Your task to perform on an android device: Check the weather Image 0: 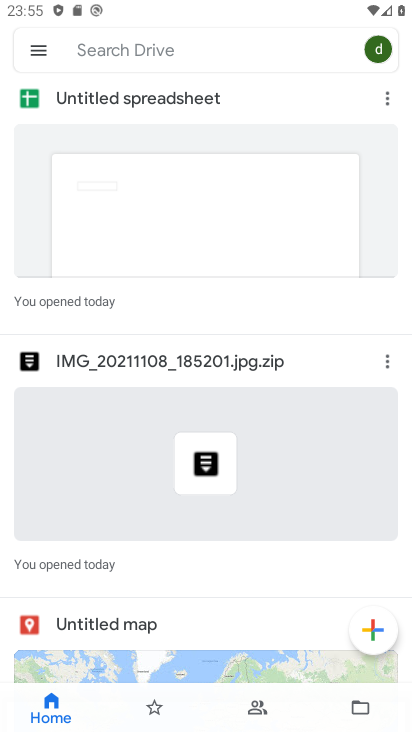
Step 0: press home button
Your task to perform on an android device: Check the weather Image 1: 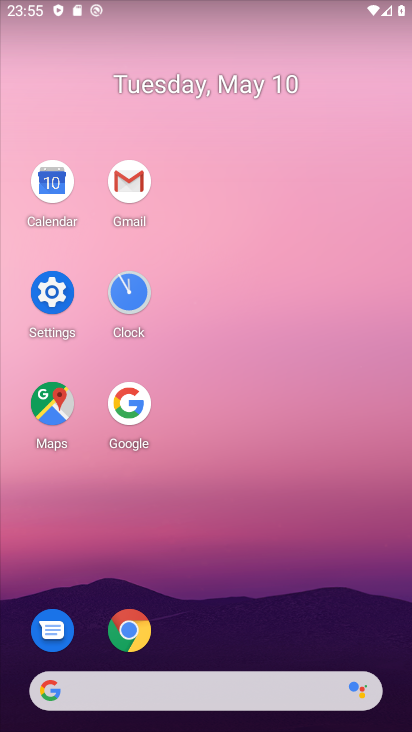
Step 1: click (132, 397)
Your task to perform on an android device: Check the weather Image 2: 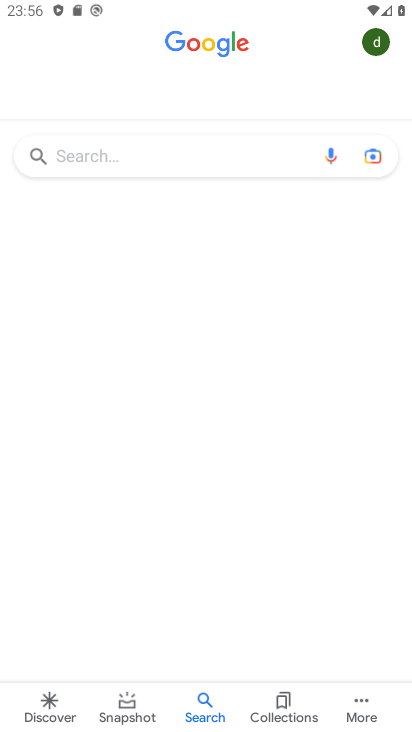
Step 2: click (143, 151)
Your task to perform on an android device: Check the weather Image 3: 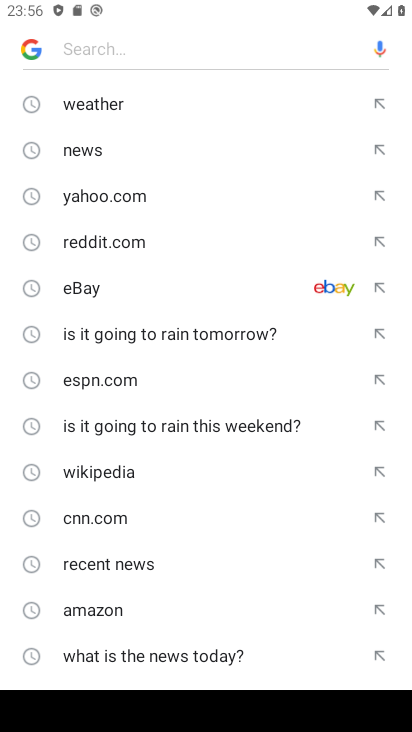
Step 3: click (113, 97)
Your task to perform on an android device: Check the weather Image 4: 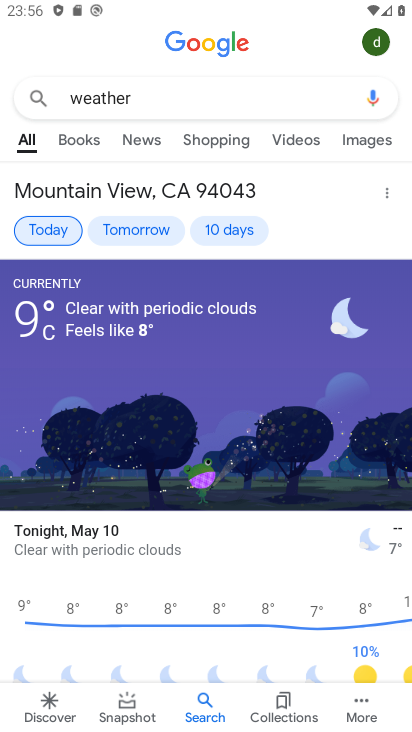
Step 4: task complete